Your task to perform on an android device: When is my next meeting? Image 0: 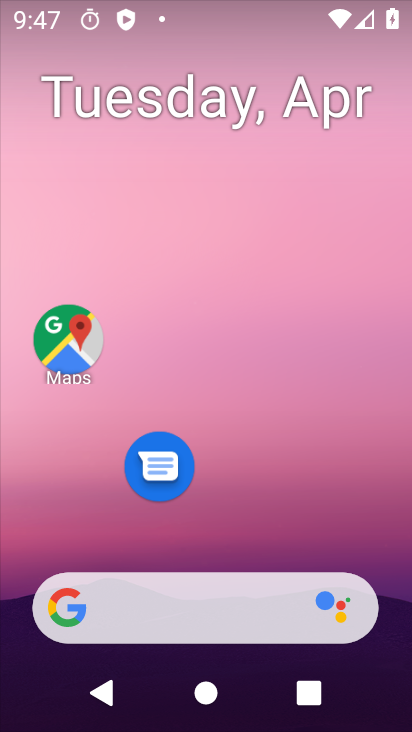
Step 0: drag from (324, 498) to (327, 240)
Your task to perform on an android device: When is my next meeting? Image 1: 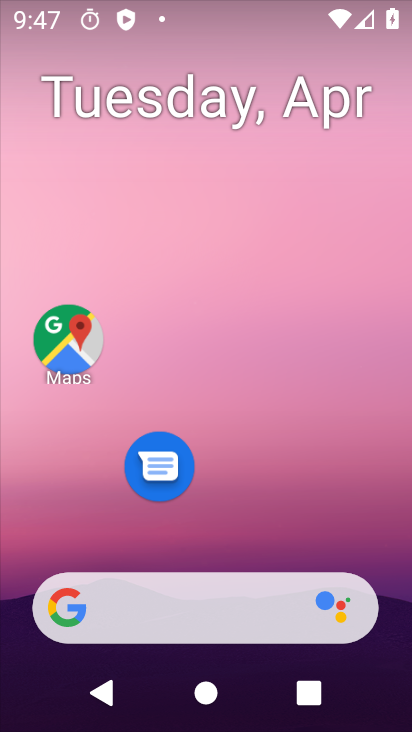
Step 1: drag from (312, 516) to (313, 129)
Your task to perform on an android device: When is my next meeting? Image 2: 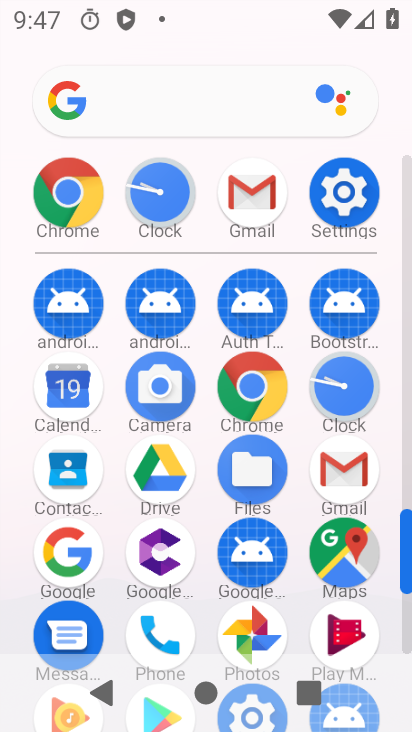
Step 2: click (337, 216)
Your task to perform on an android device: When is my next meeting? Image 3: 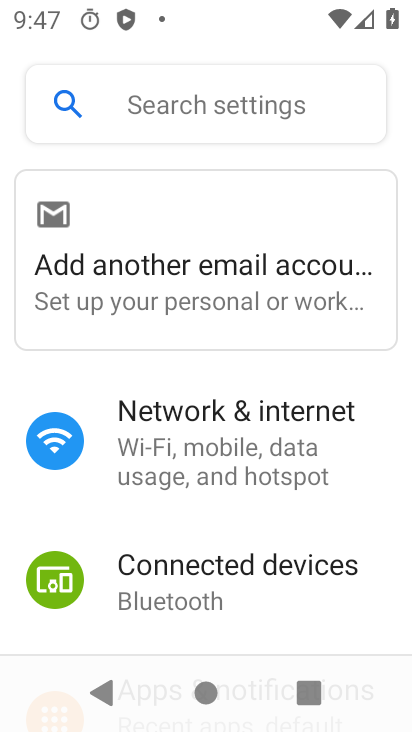
Step 3: drag from (289, 435) to (294, 282)
Your task to perform on an android device: When is my next meeting? Image 4: 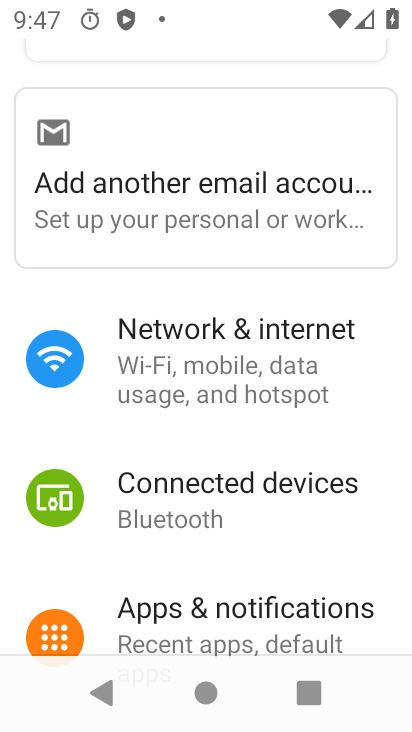
Step 4: press home button
Your task to perform on an android device: When is my next meeting? Image 5: 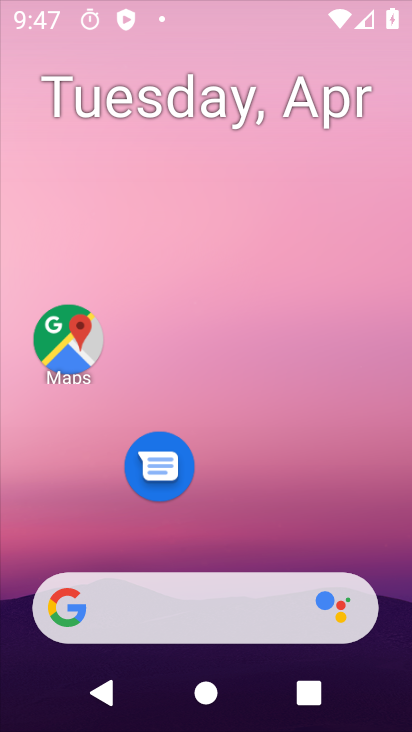
Step 5: drag from (267, 548) to (242, 179)
Your task to perform on an android device: When is my next meeting? Image 6: 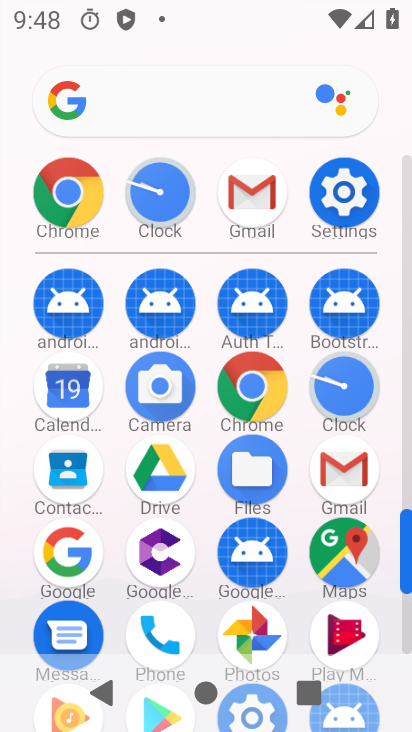
Step 6: click (69, 413)
Your task to perform on an android device: When is my next meeting? Image 7: 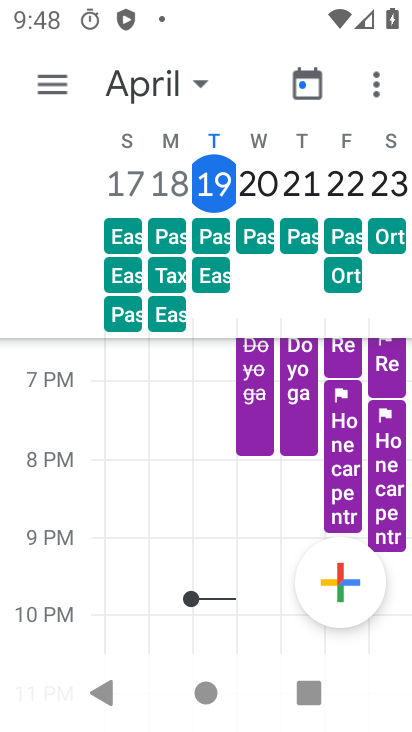
Step 7: click (254, 181)
Your task to perform on an android device: When is my next meeting? Image 8: 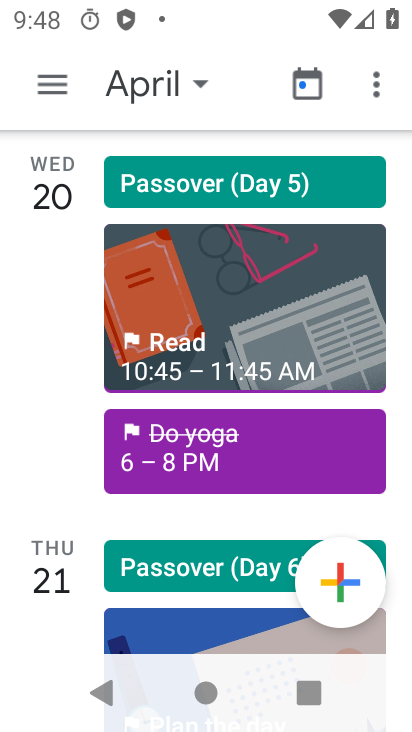
Step 8: task complete